Your task to perform on an android device: View the shopping cart on walmart. Search for usb-c on walmart, select the first entry, and add it to the cart. Image 0: 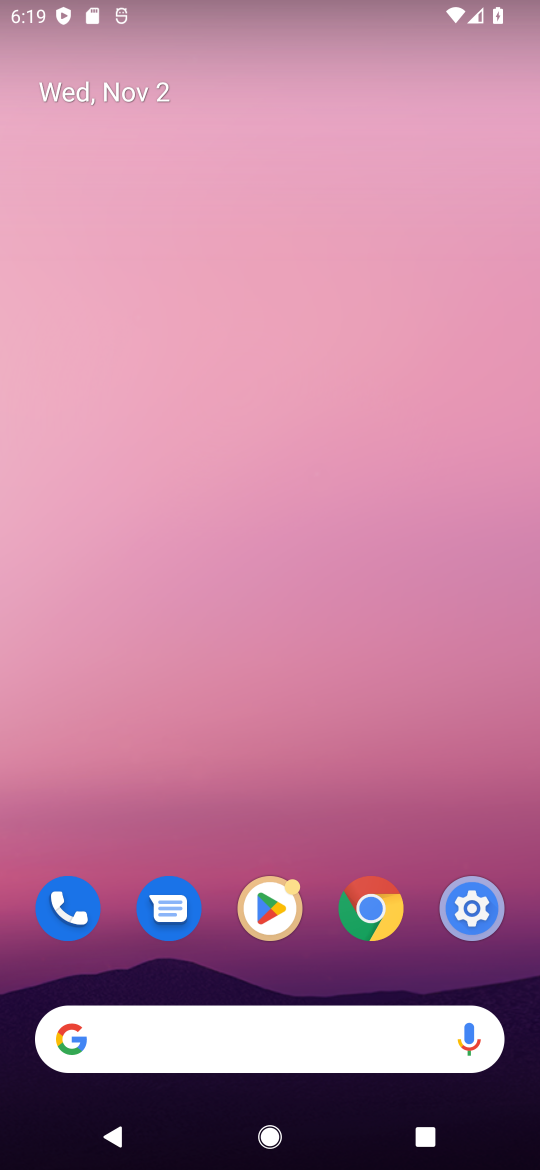
Step 0: click (313, 1053)
Your task to perform on an android device: View the shopping cart on walmart. Search for usb-c on walmart, select the first entry, and add it to the cart. Image 1: 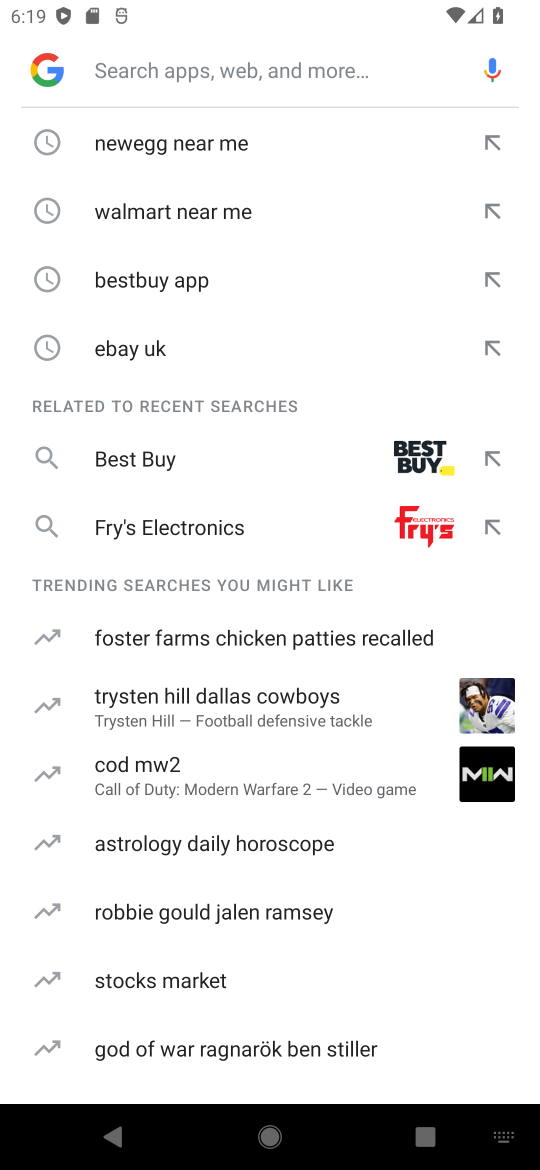
Step 1: type "walmart"
Your task to perform on an android device: View the shopping cart on walmart. Search for usb-c on walmart, select the first entry, and add it to the cart. Image 2: 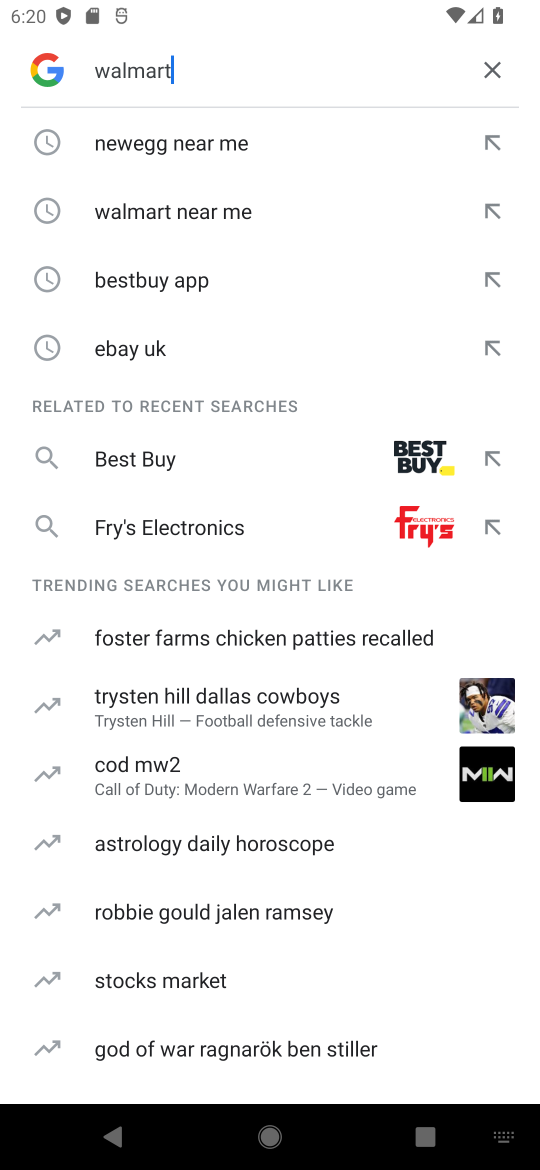
Step 2: click (408, 80)
Your task to perform on an android device: View the shopping cart on walmart. Search for usb-c on walmart, select the first entry, and add it to the cart. Image 3: 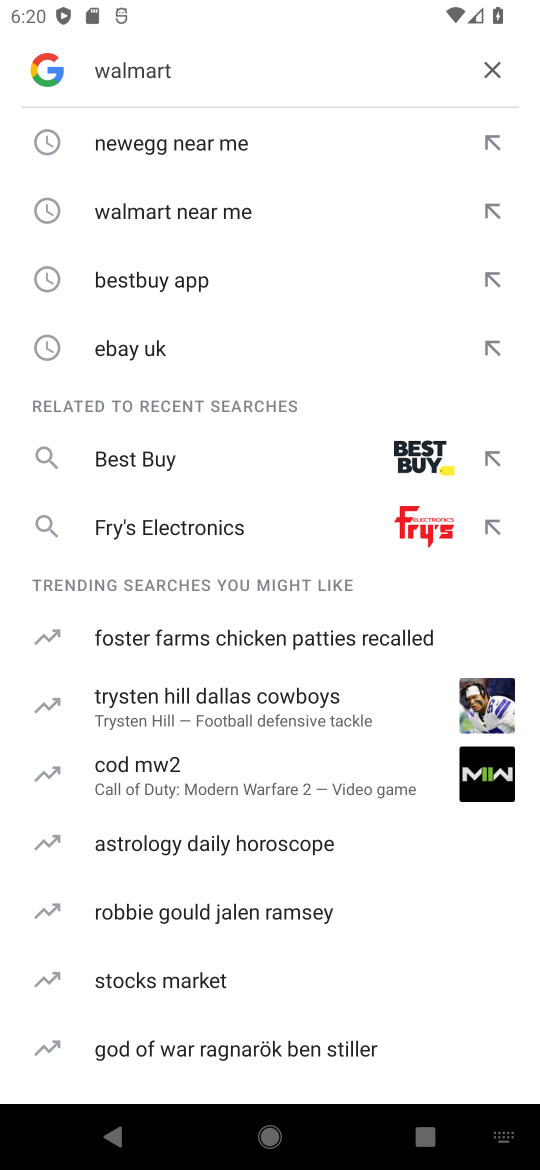
Step 3: click (174, 225)
Your task to perform on an android device: View the shopping cart on walmart. Search for usb-c on walmart, select the first entry, and add it to the cart. Image 4: 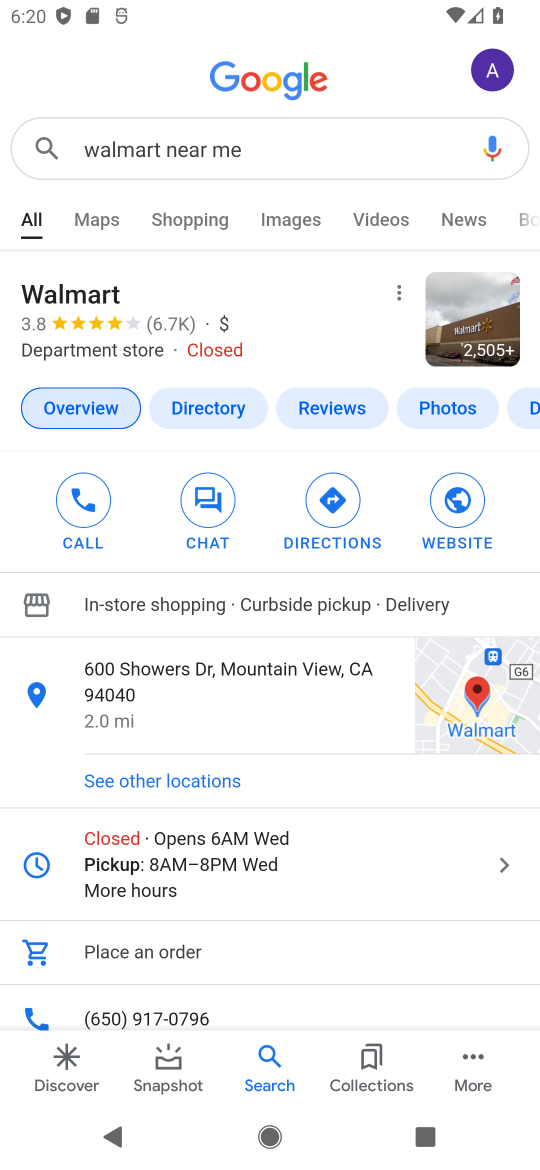
Step 4: click (40, 292)
Your task to perform on an android device: View the shopping cart on walmart. Search for usb-c on walmart, select the first entry, and add it to the cart. Image 5: 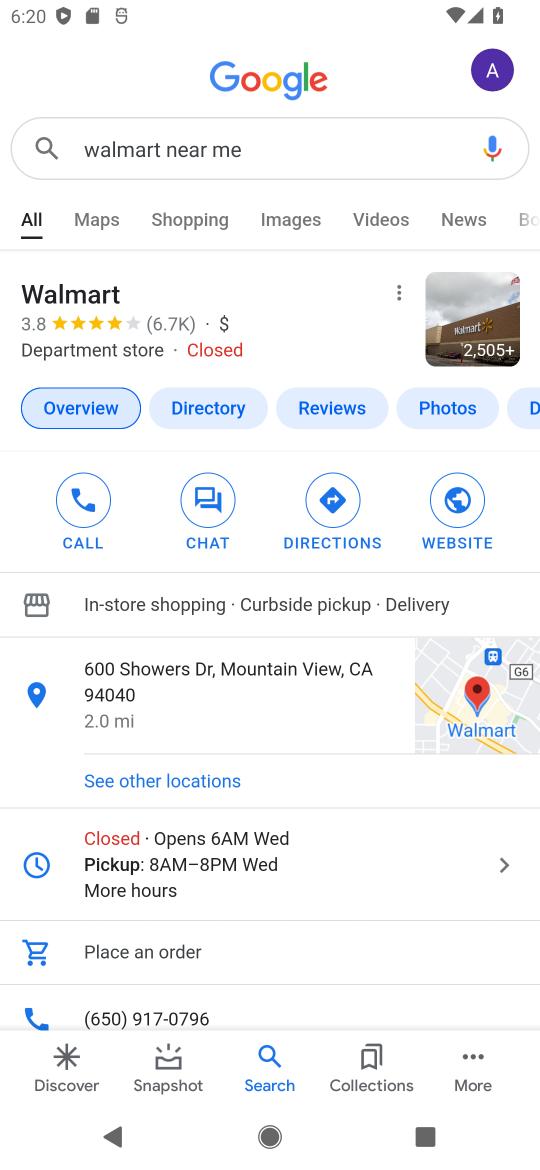
Step 5: click (48, 292)
Your task to perform on an android device: View the shopping cart on walmart. Search for usb-c on walmart, select the first entry, and add it to the cart. Image 6: 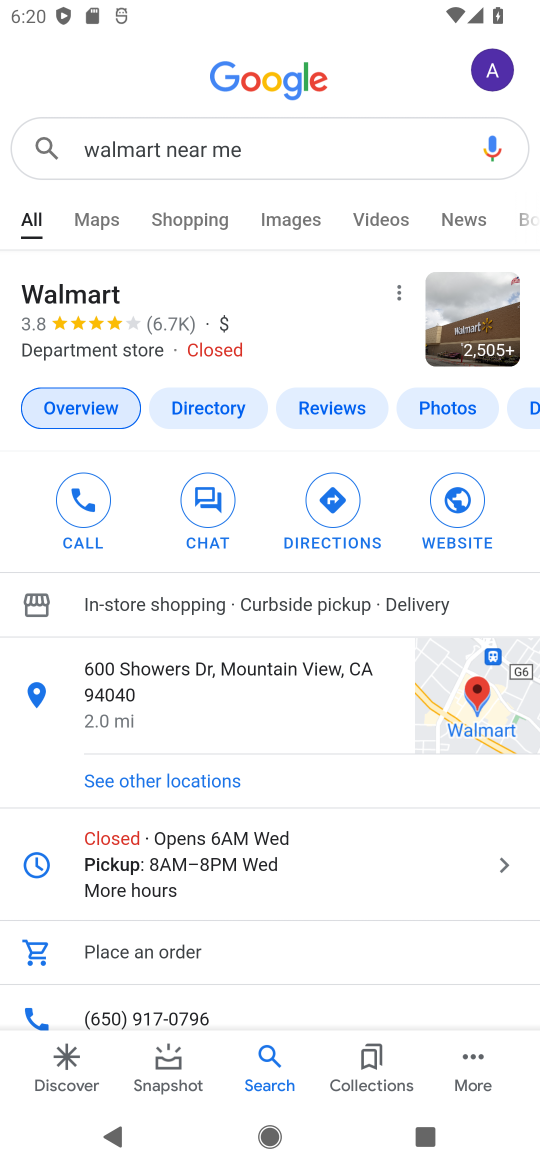
Step 6: task complete